Your task to perform on an android device: Go to Maps Image 0: 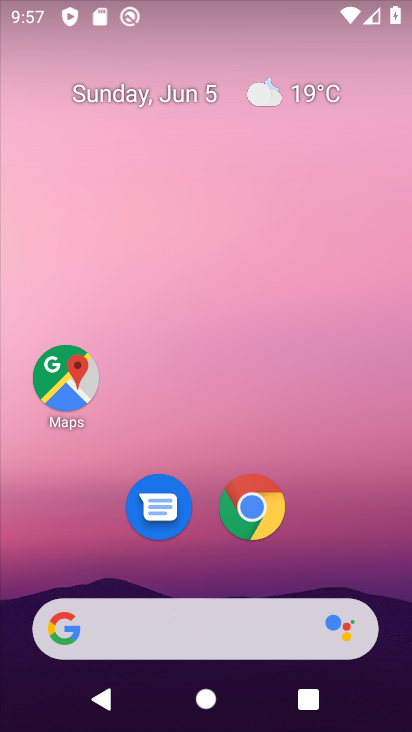
Step 0: click (58, 360)
Your task to perform on an android device: Go to Maps Image 1: 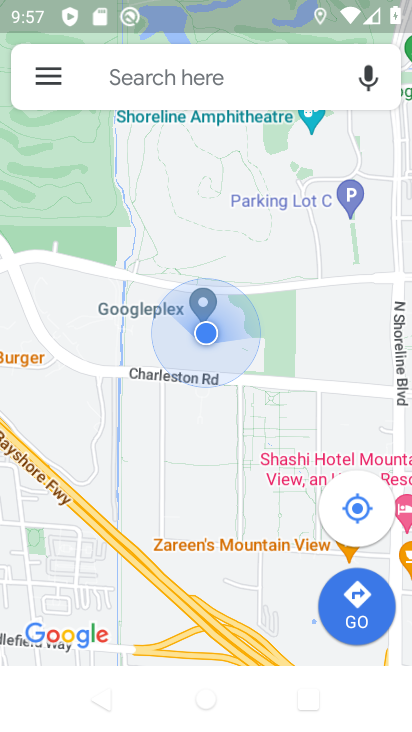
Step 1: task complete